Your task to perform on an android device: Open Wikipedia Image 0: 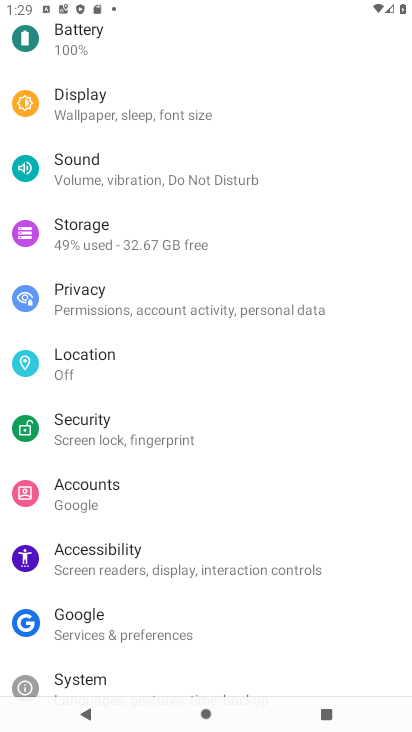
Step 0: press home button
Your task to perform on an android device: Open Wikipedia Image 1: 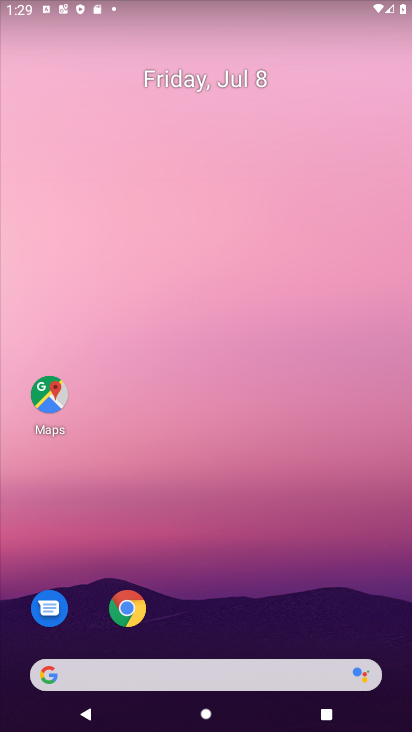
Step 1: click (130, 606)
Your task to perform on an android device: Open Wikipedia Image 2: 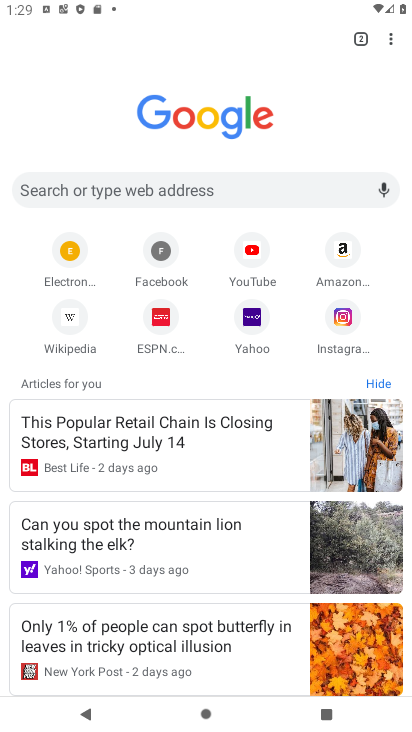
Step 2: click (114, 179)
Your task to perform on an android device: Open Wikipedia Image 3: 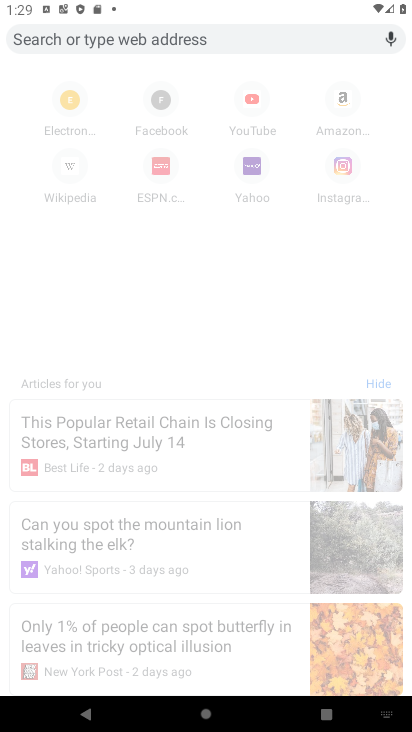
Step 3: type "wikipedia"
Your task to perform on an android device: Open Wikipedia Image 4: 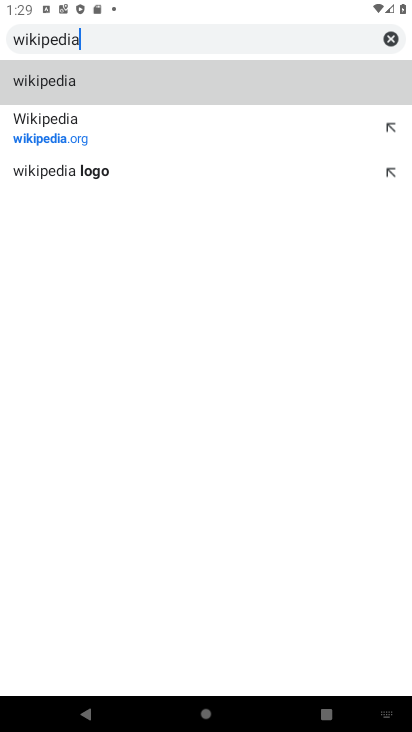
Step 4: click (53, 83)
Your task to perform on an android device: Open Wikipedia Image 5: 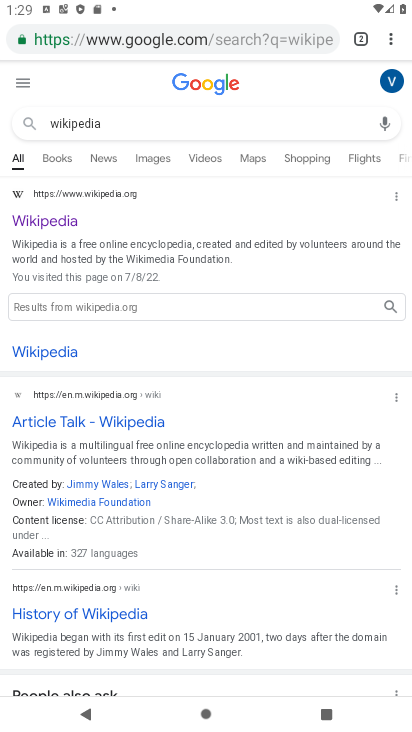
Step 5: click (27, 222)
Your task to perform on an android device: Open Wikipedia Image 6: 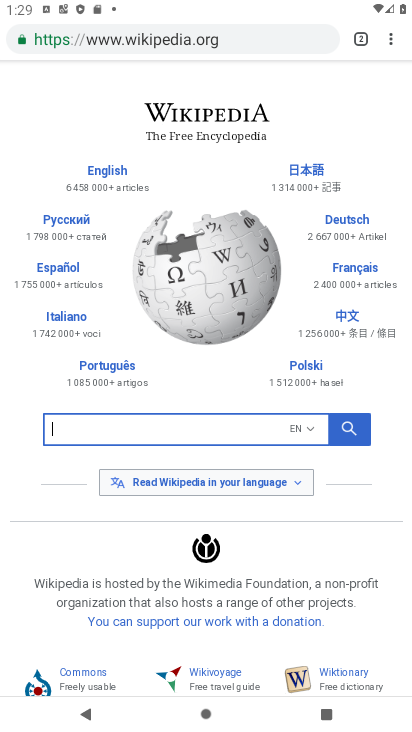
Step 6: task complete